Your task to perform on an android device: What is the news today? Image 0: 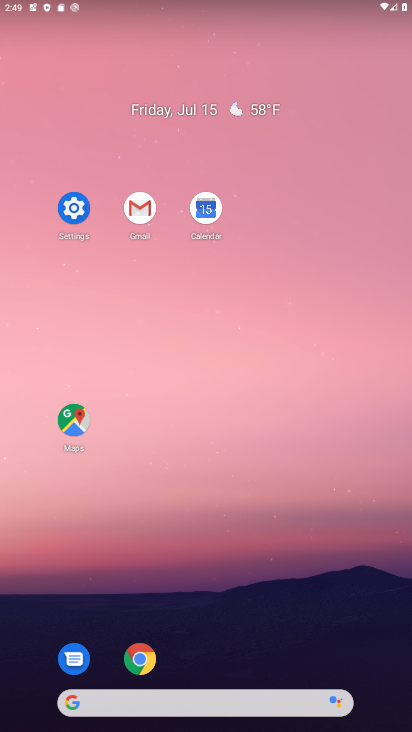
Step 0: click (137, 658)
Your task to perform on an android device: What is the news today? Image 1: 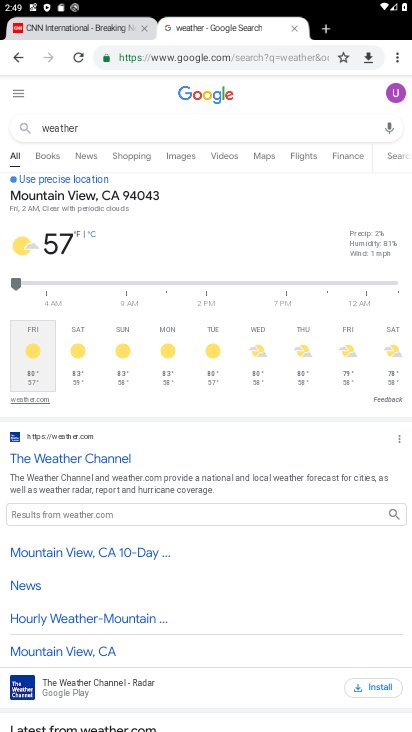
Step 1: click (325, 27)
Your task to perform on an android device: What is the news today? Image 2: 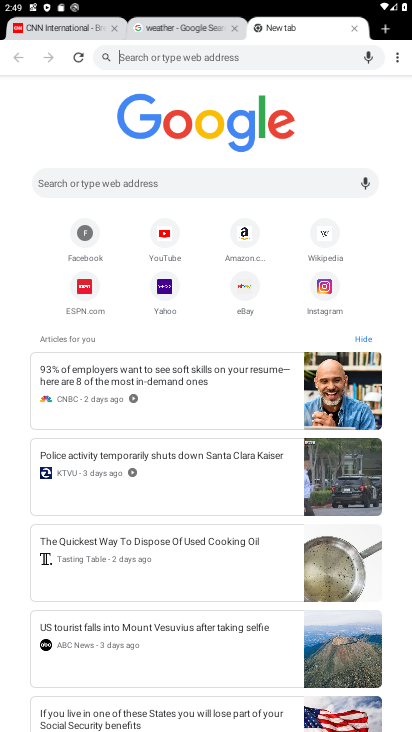
Step 2: type "news"
Your task to perform on an android device: What is the news today? Image 3: 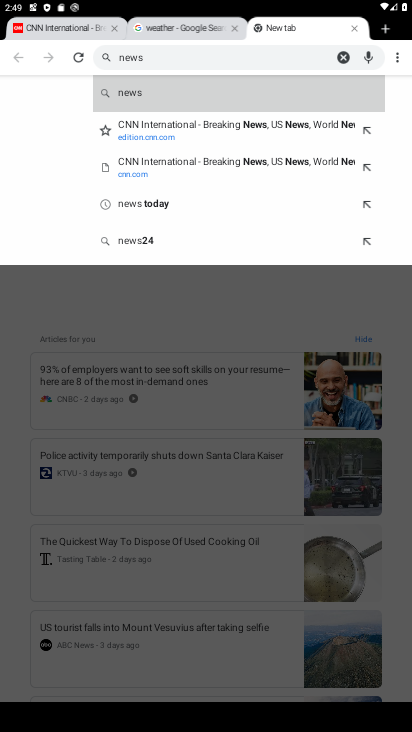
Step 3: click (124, 91)
Your task to perform on an android device: What is the news today? Image 4: 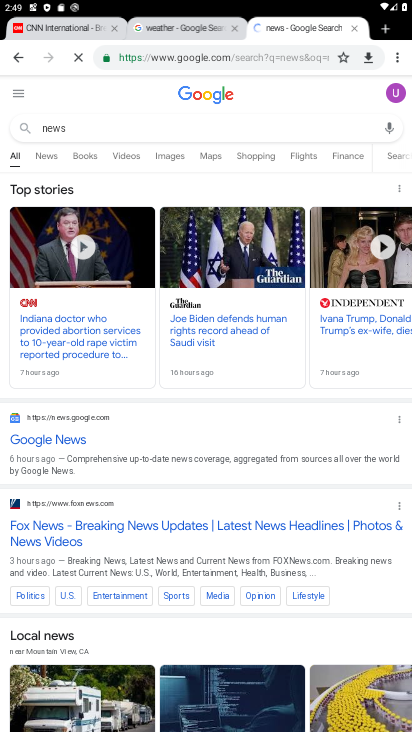
Step 4: task complete